Your task to perform on an android device: turn on sleep mode Image 0: 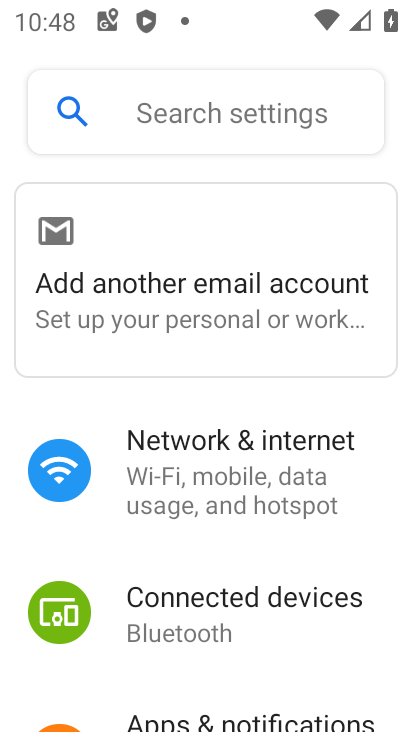
Step 0: drag from (265, 624) to (234, 376)
Your task to perform on an android device: turn on sleep mode Image 1: 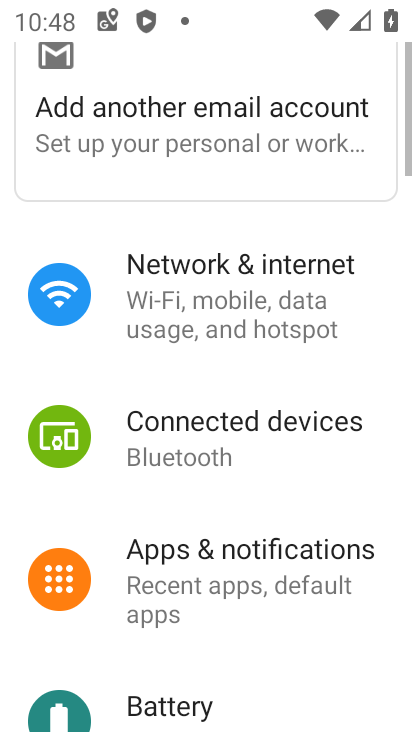
Step 1: drag from (273, 607) to (282, 324)
Your task to perform on an android device: turn on sleep mode Image 2: 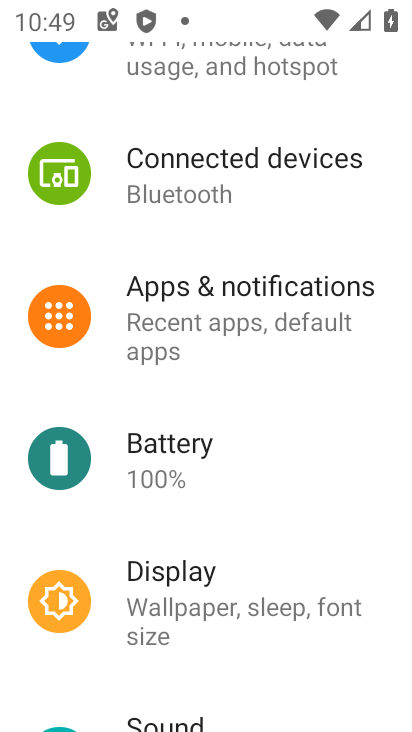
Step 2: click (192, 596)
Your task to perform on an android device: turn on sleep mode Image 3: 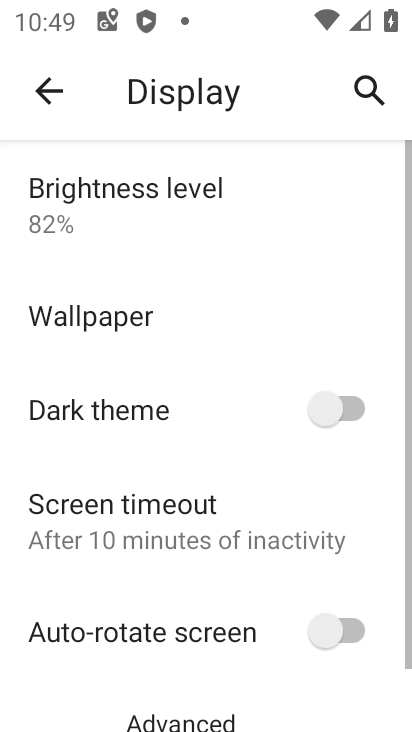
Step 3: click (144, 528)
Your task to perform on an android device: turn on sleep mode Image 4: 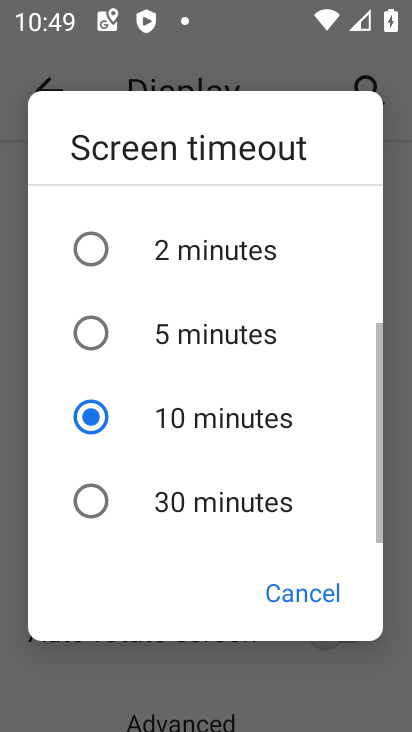
Step 4: task complete